Your task to perform on an android device: turn off location Image 0: 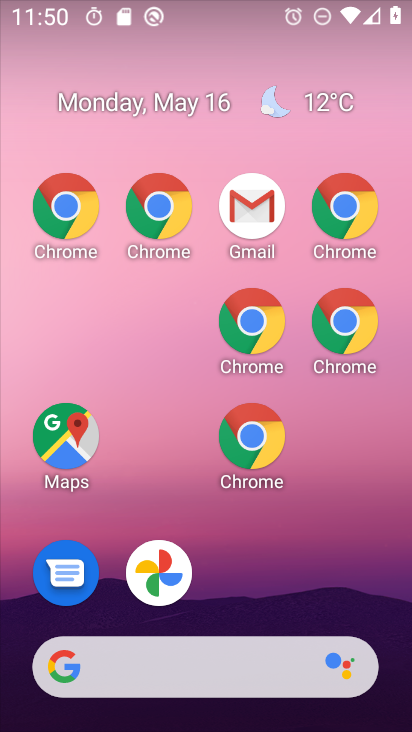
Step 0: drag from (337, 565) to (325, 167)
Your task to perform on an android device: turn off location Image 1: 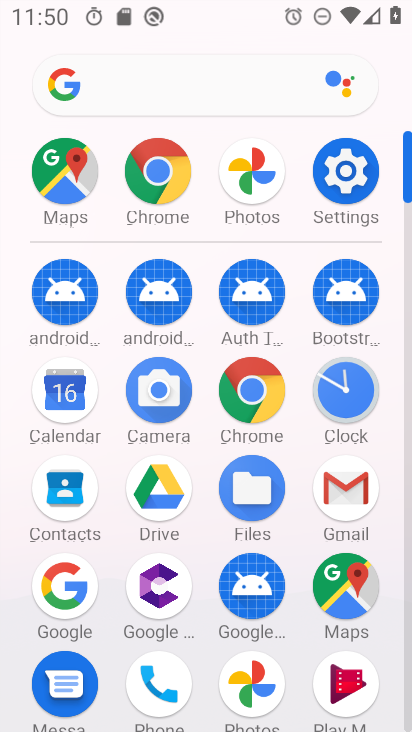
Step 1: click (322, 191)
Your task to perform on an android device: turn off location Image 2: 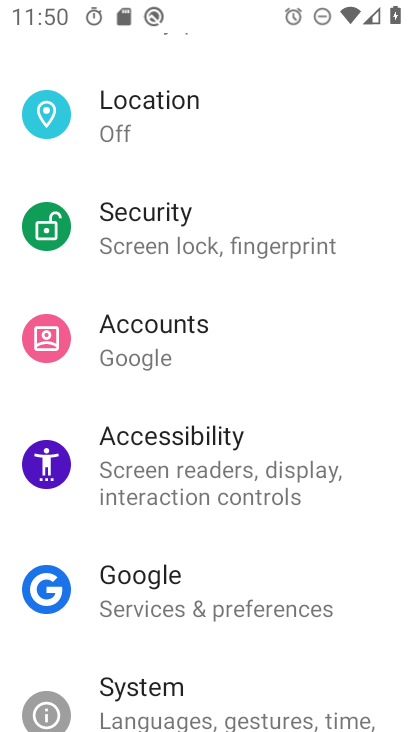
Step 2: click (103, 123)
Your task to perform on an android device: turn off location Image 3: 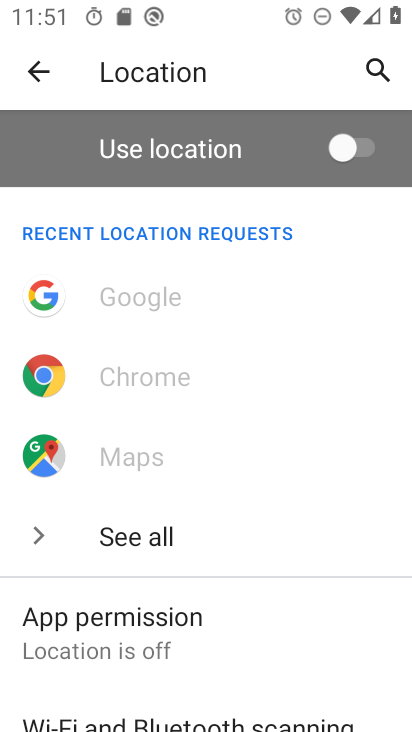
Step 3: task complete